Your task to perform on an android device: turn on the 12-hour format for clock Image 0: 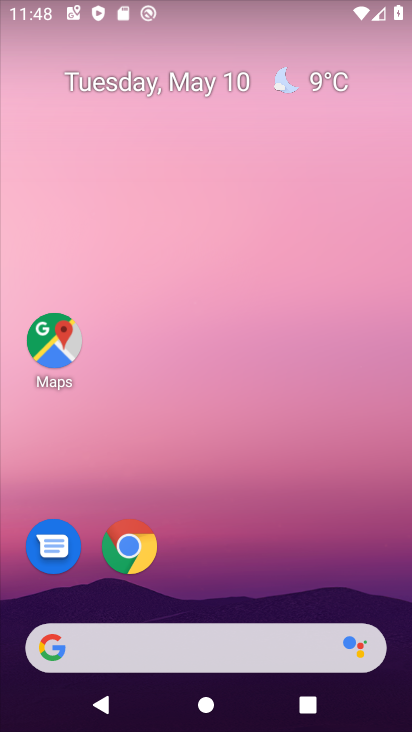
Step 0: drag from (183, 540) to (233, 284)
Your task to perform on an android device: turn on the 12-hour format for clock Image 1: 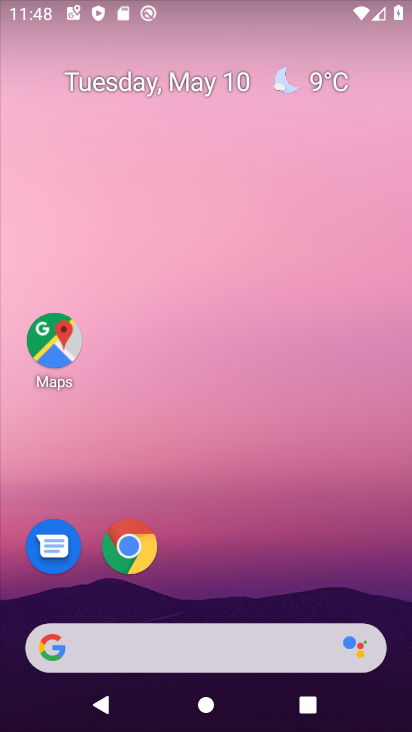
Step 1: drag from (203, 551) to (292, 54)
Your task to perform on an android device: turn on the 12-hour format for clock Image 2: 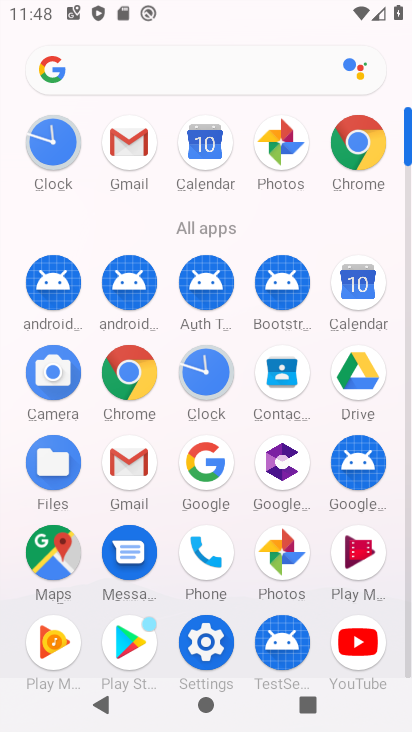
Step 2: click (204, 382)
Your task to perform on an android device: turn on the 12-hour format for clock Image 3: 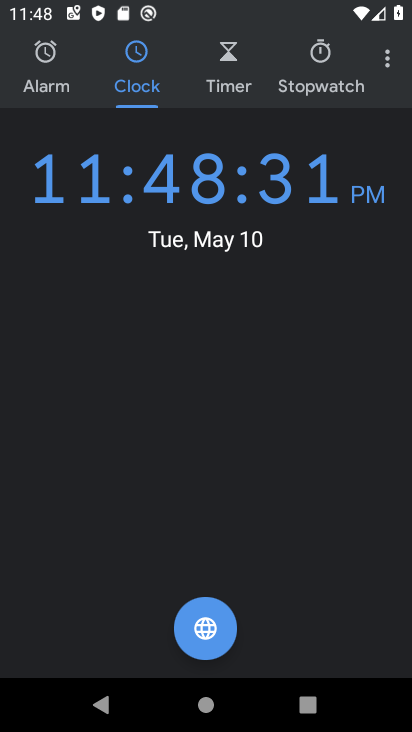
Step 3: click (333, 67)
Your task to perform on an android device: turn on the 12-hour format for clock Image 4: 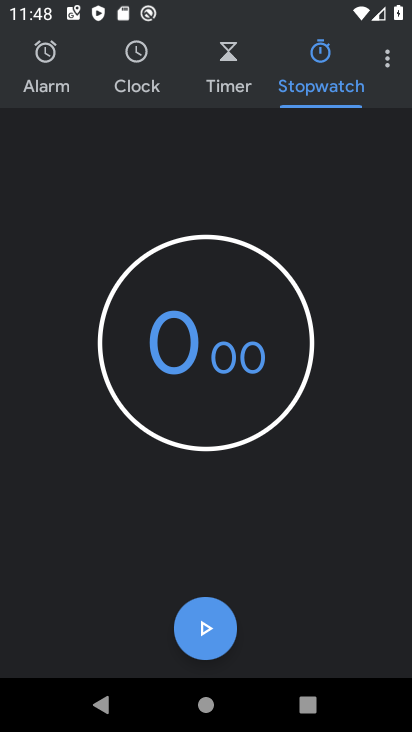
Step 4: click (389, 64)
Your task to perform on an android device: turn on the 12-hour format for clock Image 5: 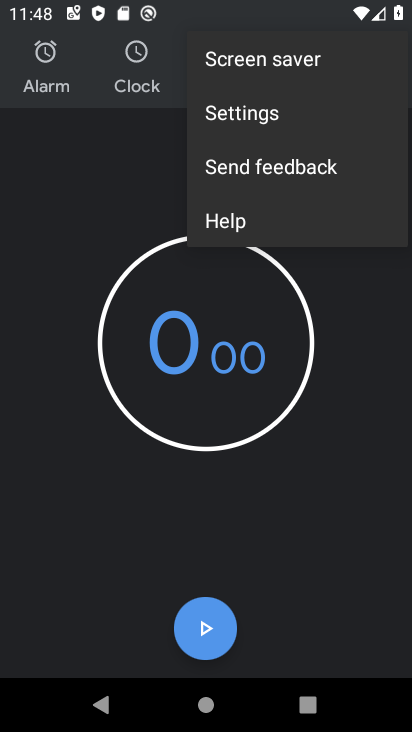
Step 5: click (260, 116)
Your task to perform on an android device: turn on the 12-hour format for clock Image 6: 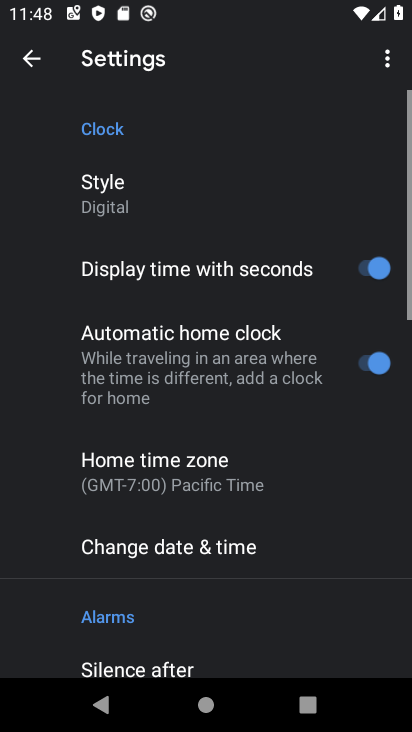
Step 6: drag from (208, 515) to (277, 263)
Your task to perform on an android device: turn on the 12-hour format for clock Image 7: 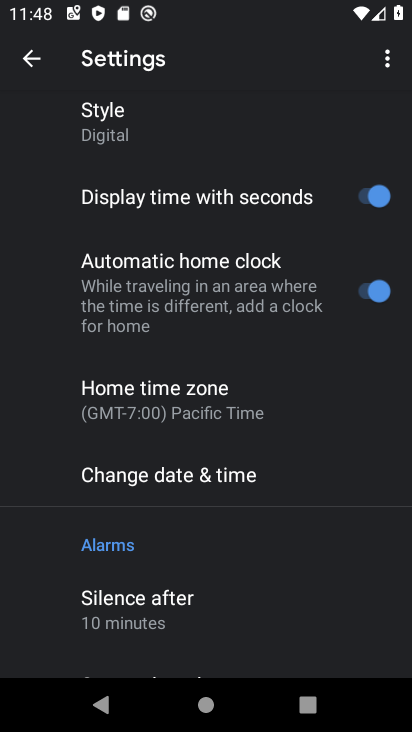
Step 7: click (164, 476)
Your task to perform on an android device: turn on the 12-hour format for clock Image 8: 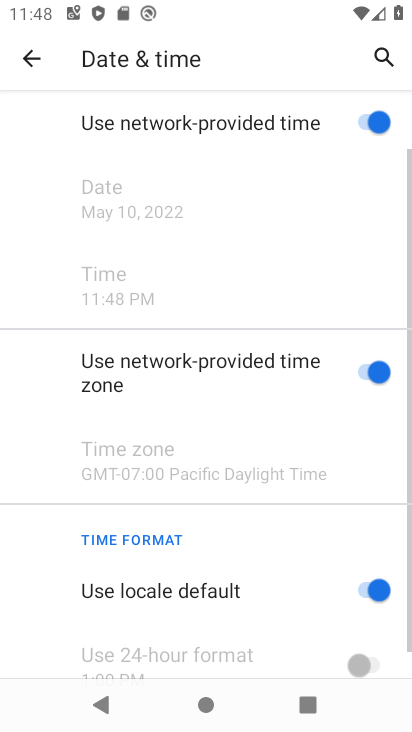
Step 8: task complete